Your task to perform on an android device: Go to Google maps Image 0: 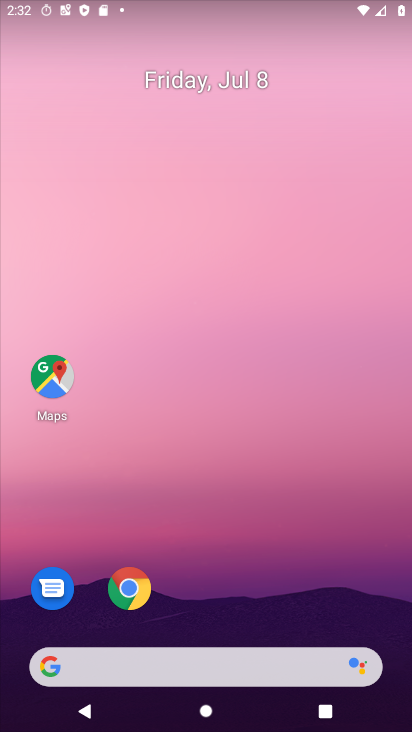
Step 0: press home button
Your task to perform on an android device: Go to Google maps Image 1: 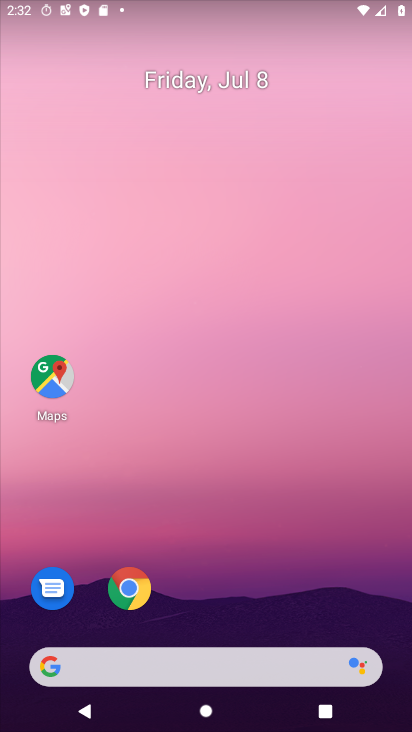
Step 1: drag from (325, 623) to (262, 70)
Your task to perform on an android device: Go to Google maps Image 2: 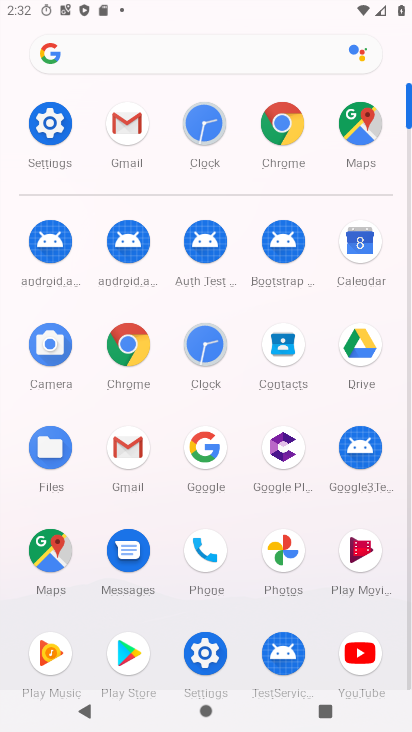
Step 2: click (357, 122)
Your task to perform on an android device: Go to Google maps Image 3: 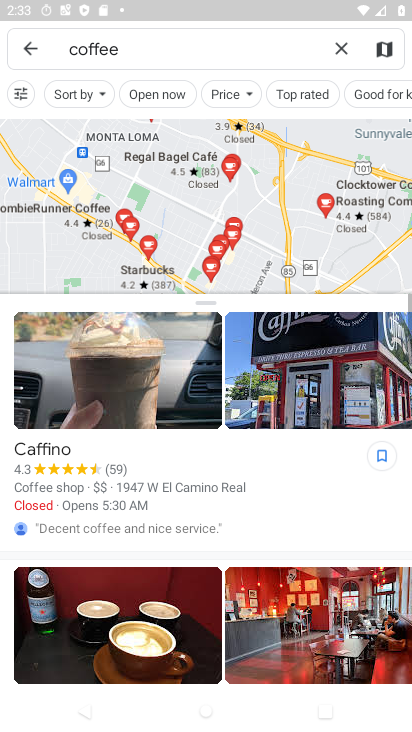
Step 3: task complete